Your task to perform on an android device: turn on translation in the chrome app Image 0: 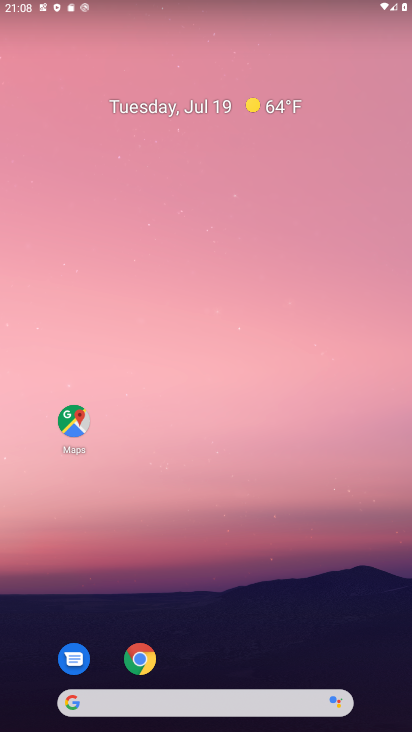
Step 0: click (143, 664)
Your task to perform on an android device: turn on translation in the chrome app Image 1: 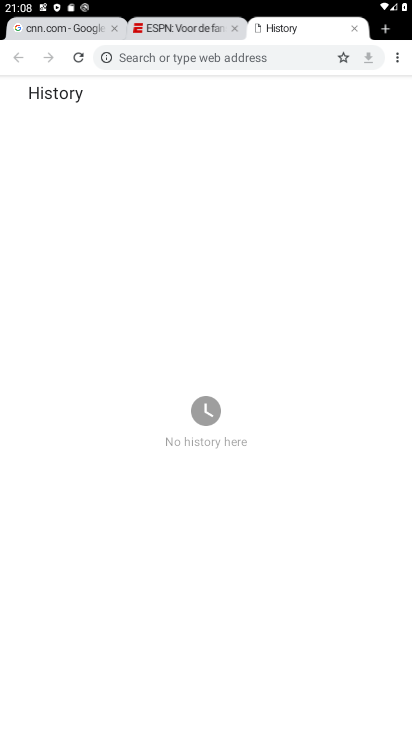
Step 1: click (402, 61)
Your task to perform on an android device: turn on translation in the chrome app Image 2: 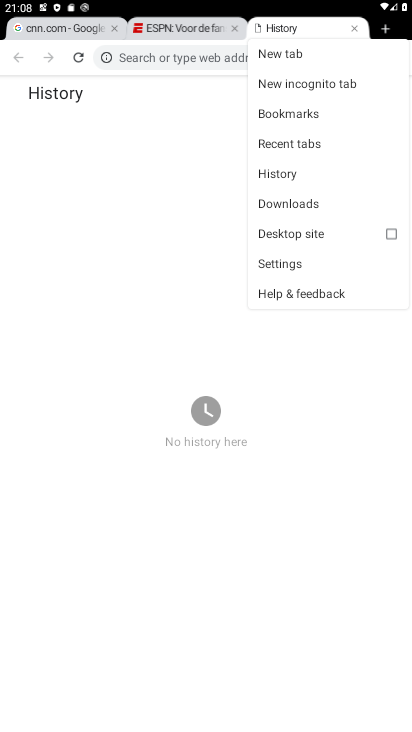
Step 2: click (278, 275)
Your task to perform on an android device: turn on translation in the chrome app Image 3: 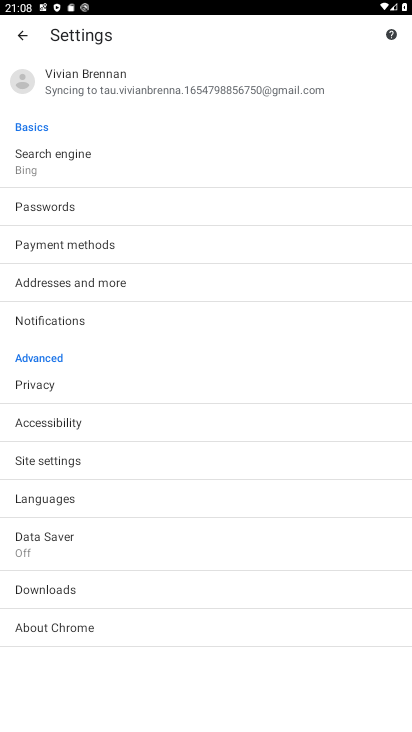
Step 3: click (116, 499)
Your task to perform on an android device: turn on translation in the chrome app Image 4: 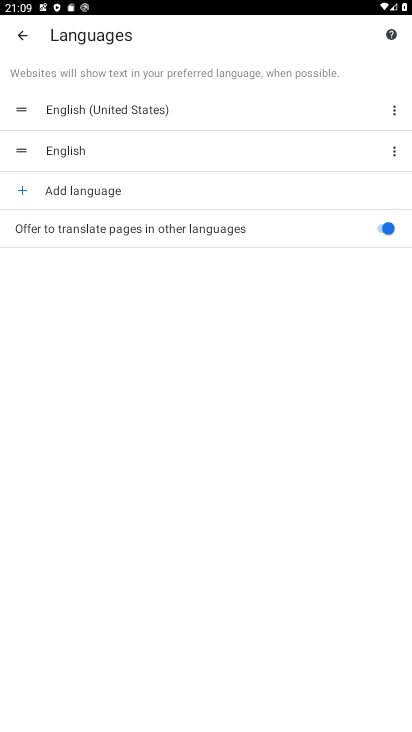
Step 4: task complete